Your task to perform on an android device: toggle wifi Image 0: 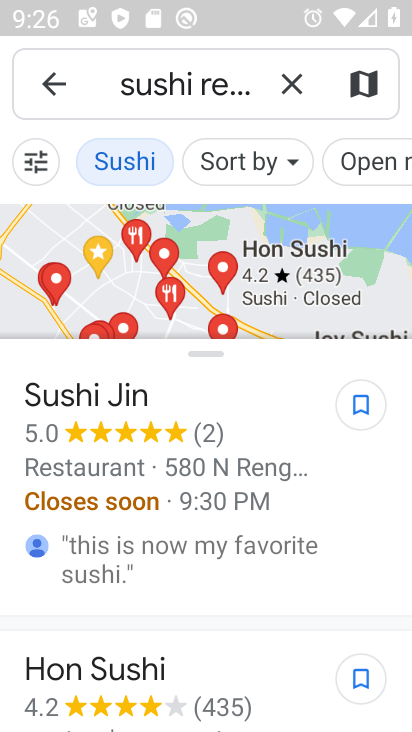
Step 0: press home button
Your task to perform on an android device: toggle wifi Image 1: 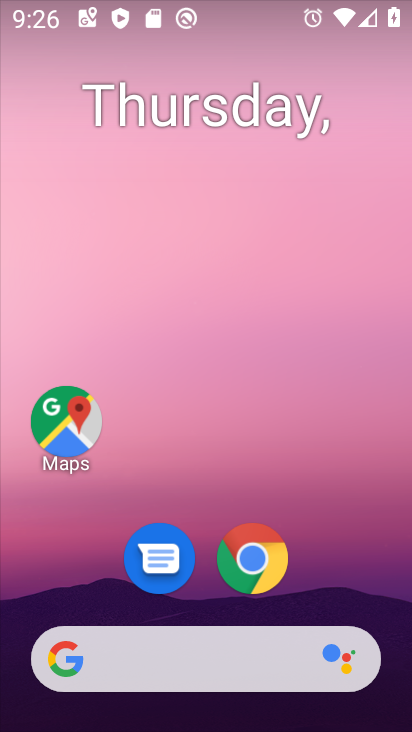
Step 1: drag from (400, 639) to (299, 49)
Your task to perform on an android device: toggle wifi Image 2: 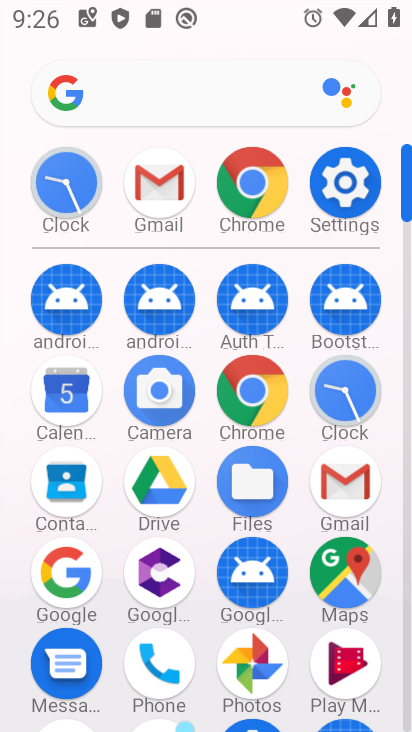
Step 2: click (409, 721)
Your task to perform on an android device: toggle wifi Image 3: 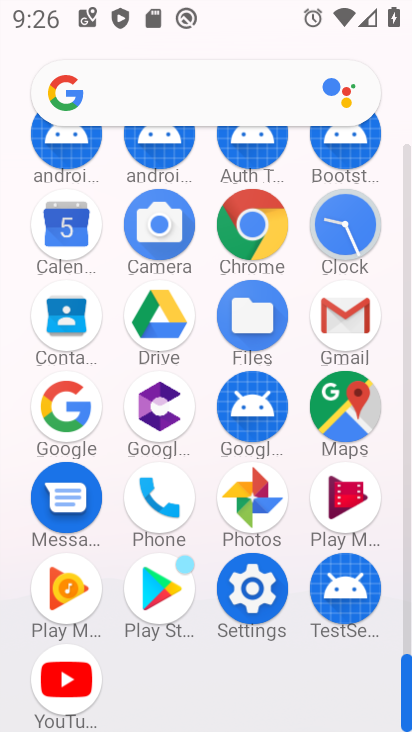
Step 3: click (247, 586)
Your task to perform on an android device: toggle wifi Image 4: 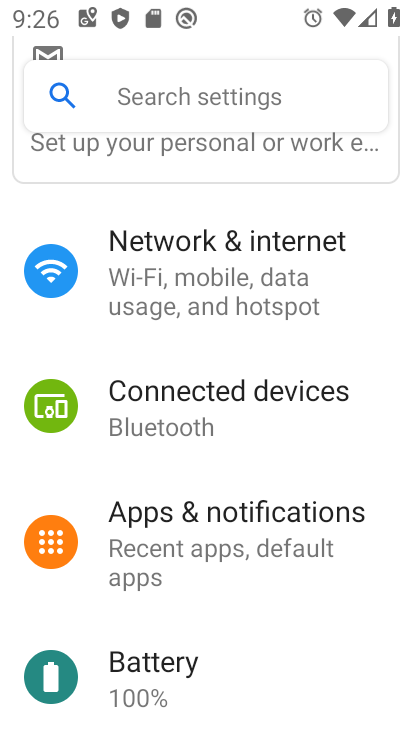
Step 4: click (166, 255)
Your task to perform on an android device: toggle wifi Image 5: 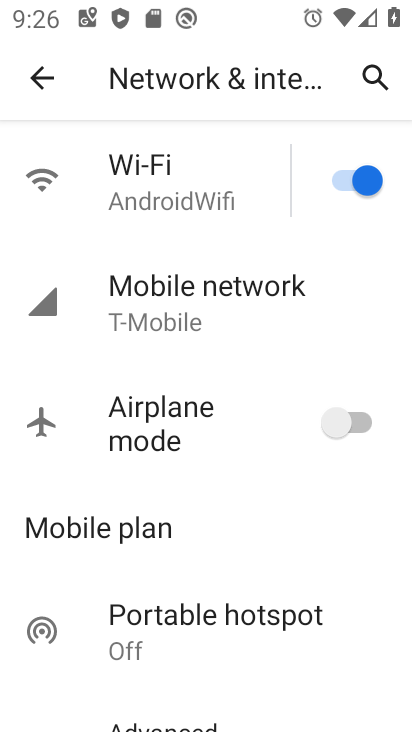
Step 5: click (336, 179)
Your task to perform on an android device: toggle wifi Image 6: 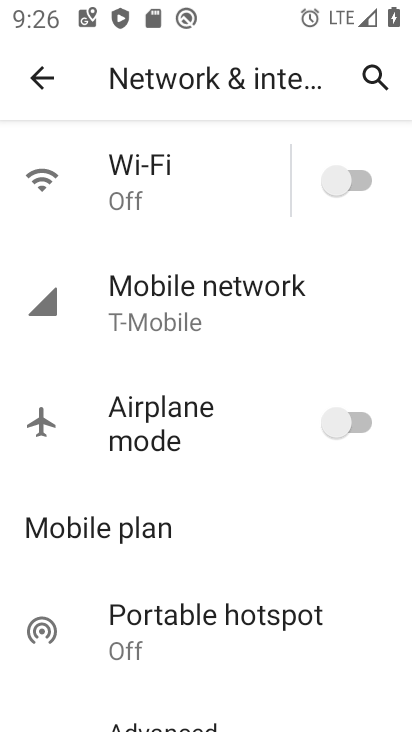
Step 6: task complete